Your task to perform on an android device: Search for vegetarian restaurants on Maps Image 0: 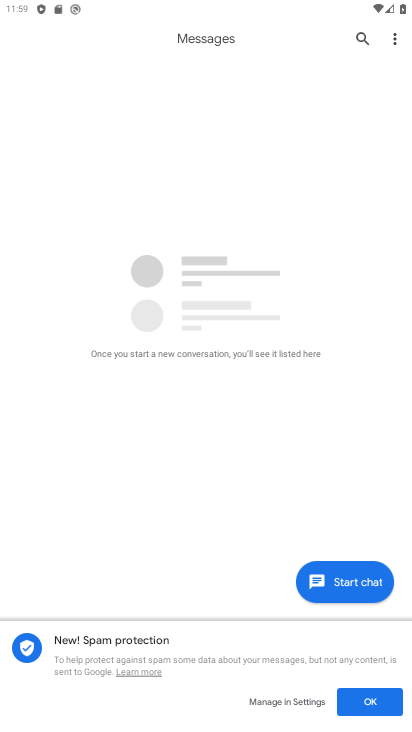
Step 0: press home button
Your task to perform on an android device: Search for vegetarian restaurants on Maps Image 1: 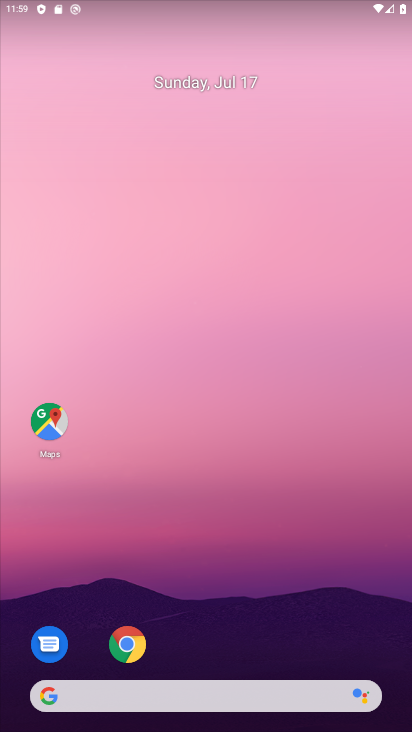
Step 1: drag from (259, 183) to (269, 86)
Your task to perform on an android device: Search for vegetarian restaurants on Maps Image 2: 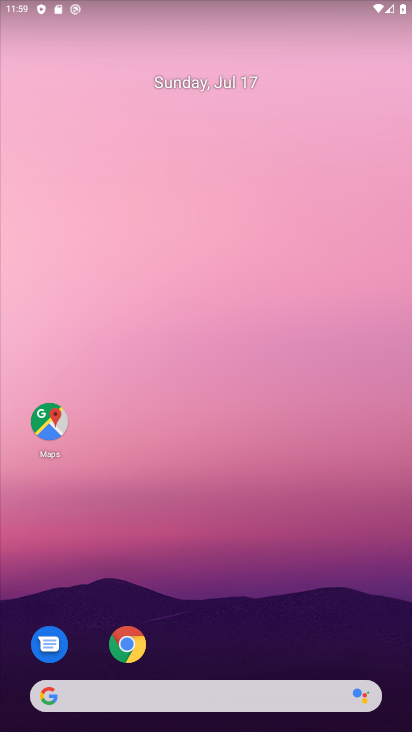
Step 2: drag from (299, 610) to (279, 67)
Your task to perform on an android device: Search for vegetarian restaurants on Maps Image 3: 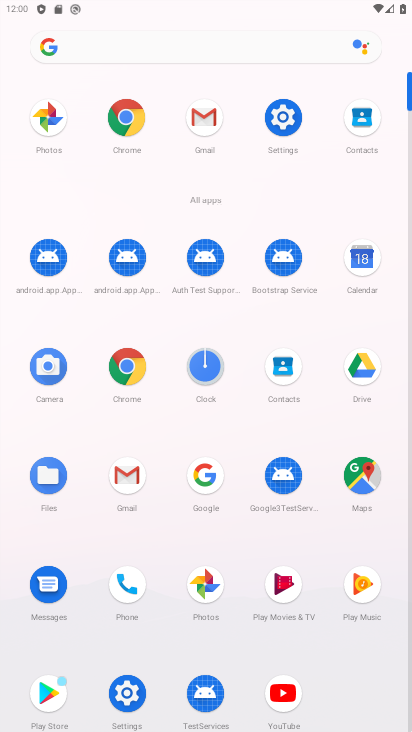
Step 3: click (368, 469)
Your task to perform on an android device: Search for vegetarian restaurants on Maps Image 4: 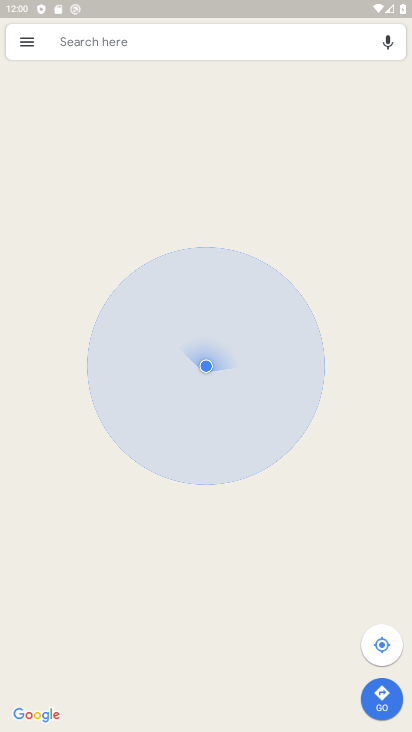
Step 4: click (139, 43)
Your task to perform on an android device: Search for vegetarian restaurants on Maps Image 5: 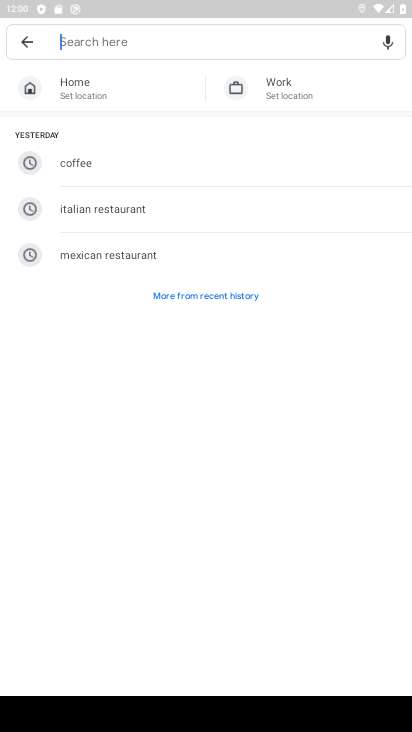
Step 5: type "vegetable restaurants"
Your task to perform on an android device: Search for vegetarian restaurants on Maps Image 6: 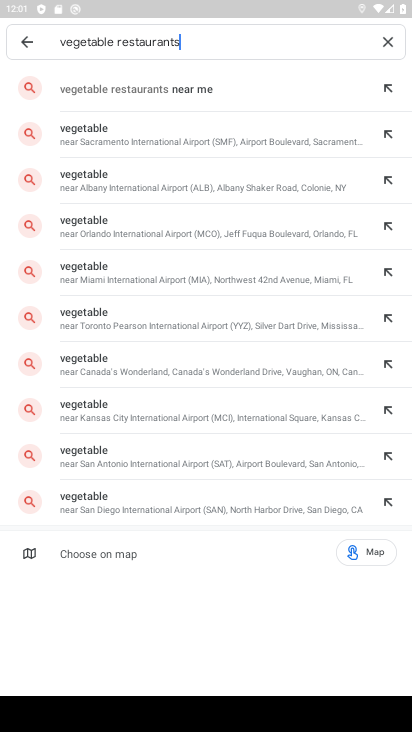
Step 6: press enter
Your task to perform on an android device: Search for vegetarian restaurants on Maps Image 7: 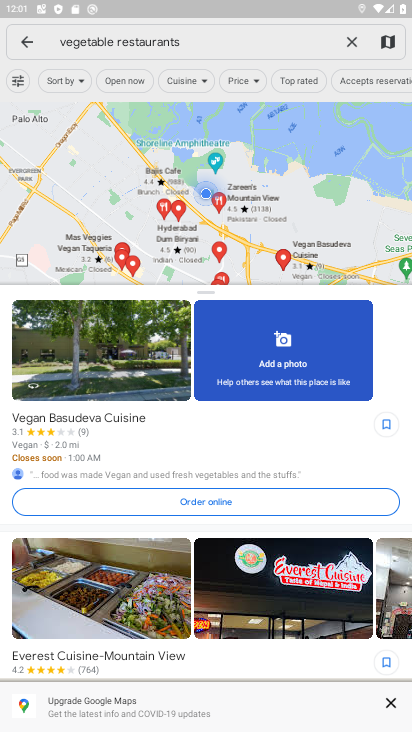
Step 7: task complete